Your task to perform on an android device: Go to Google maps Image 0: 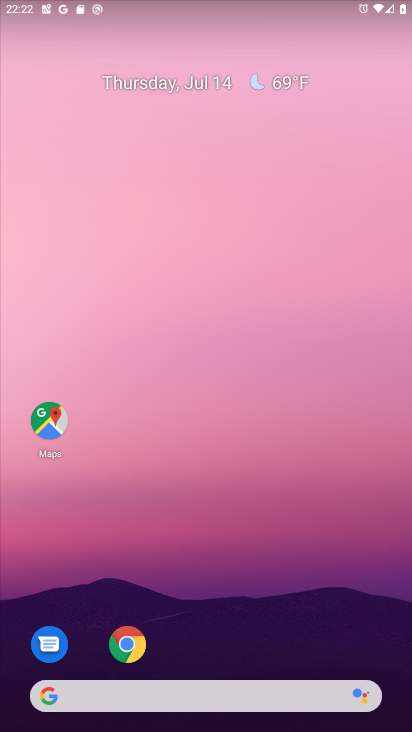
Step 0: click (53, 428)
Your task to perform on an android device: Go to Google maps Image 1: 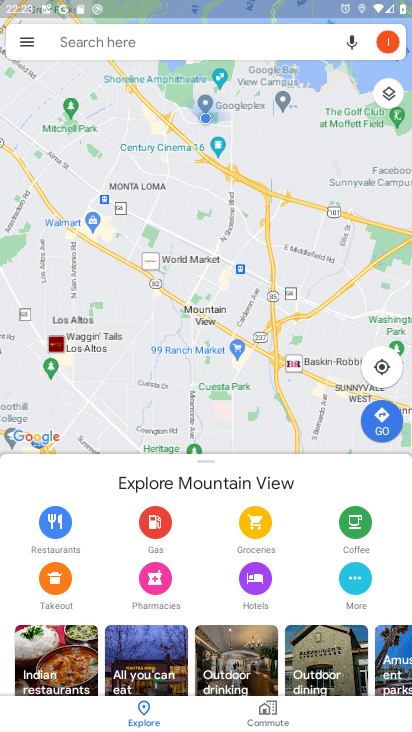
Step 1: task complete